Your task to perform on an android device: turn off picture-in-picture Image 0: 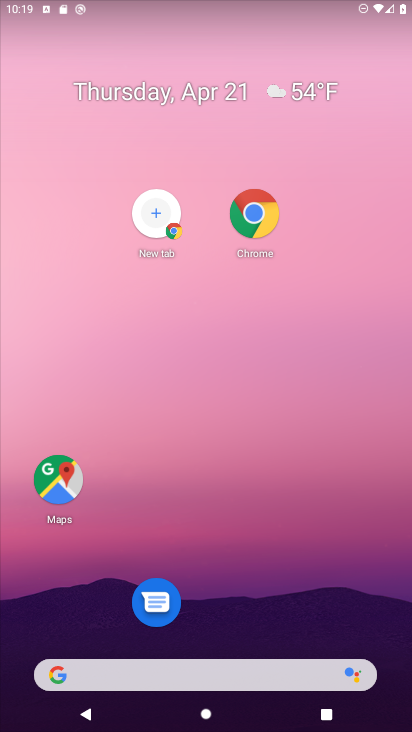
Step 0: click (264, 209)
Your task to perform on an android device: turn off picture-in-picture Image 1: 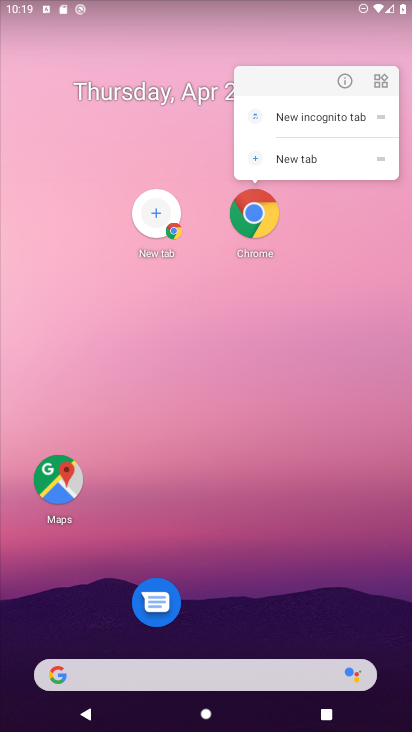
Step 1: click (349, 81)
Your task to perform on an android device: turn off picture-in-picture Image 2: 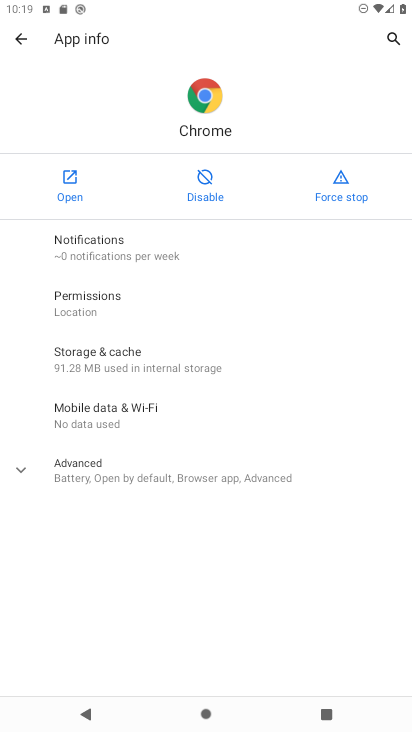
Step 2: click (204, 491)
Your task to perform on an android device: turn off picture-in-picture Image 3: 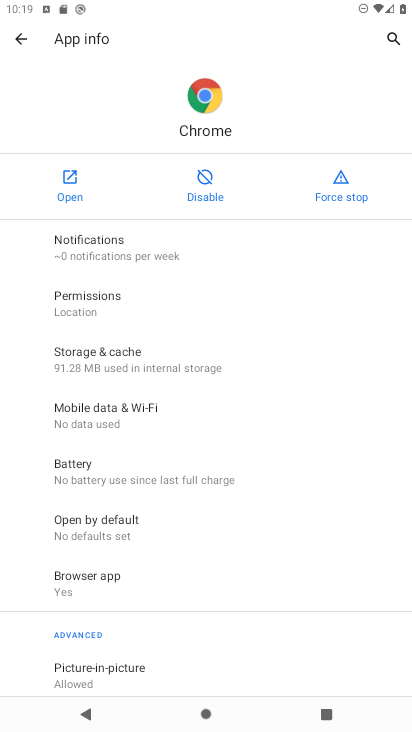
Step 3: click (164, 674)
Your task to perform on an android device: turn off picture-in-picture Image 4: 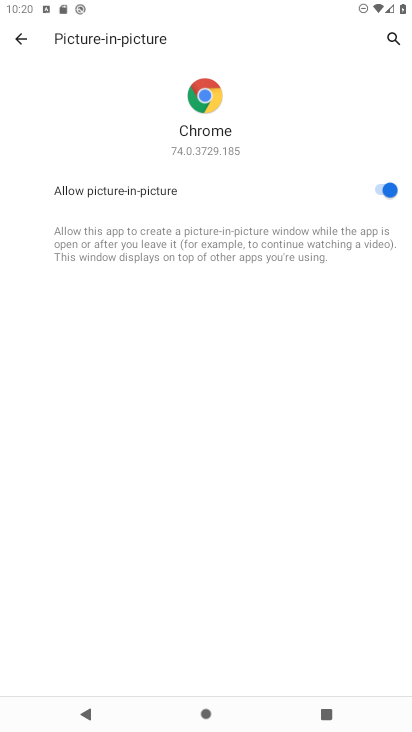
Step 4: click (386, 191)
Your task to perform on an android device: turn off picture-in-picture Image 5: 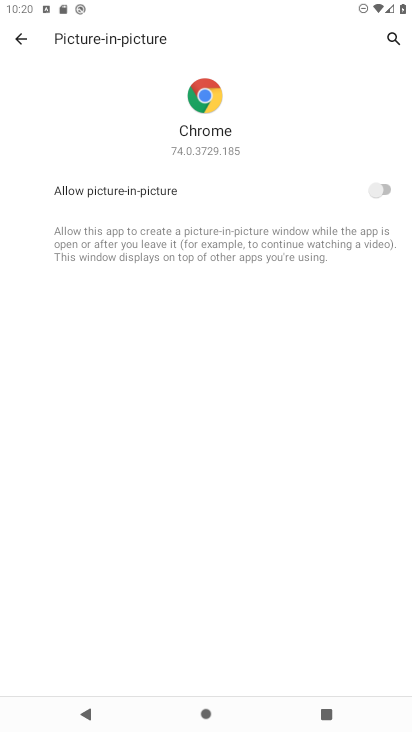
Step 5: task complete